Your task to perform on an android device: turn on javascript in the chrome app Image 0: 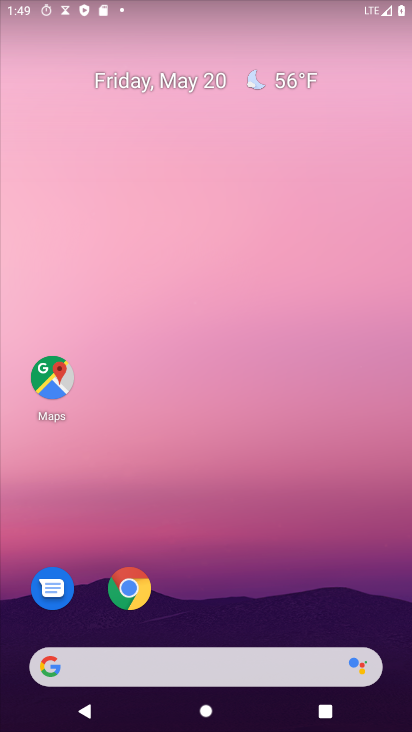
Step 0: click (135, 591)
Your task to perform on an android device: turn on javascript in the chrome app Image 1: 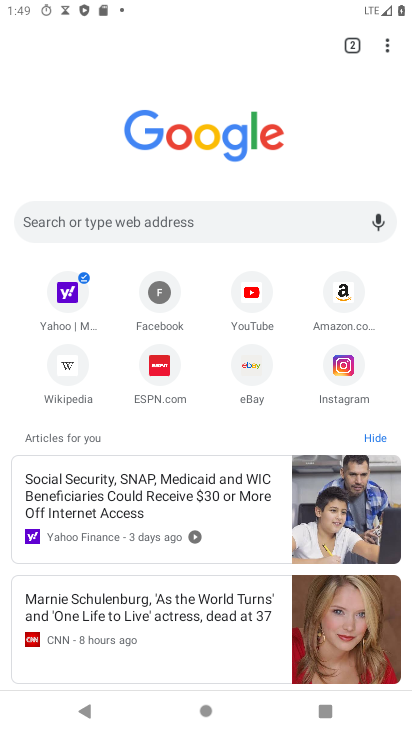
Step 1: click (383, 49)
Your task to perform on an android device: turn on javascript in the chrome app Image 2: 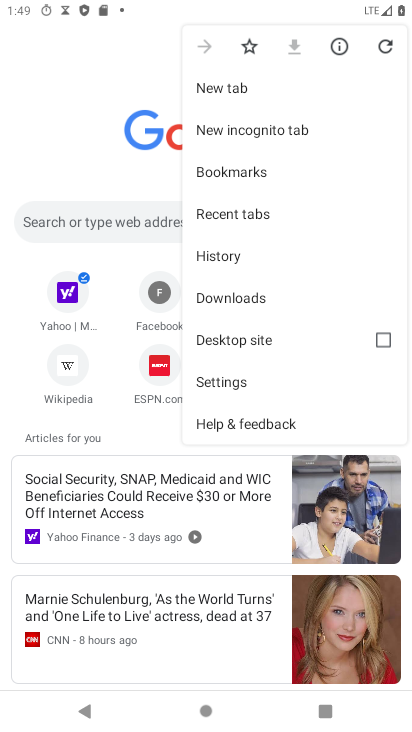
Step 2: click (217, 377)
Your task to perform on an android device: turn on javascript in the chrome app Image 3: 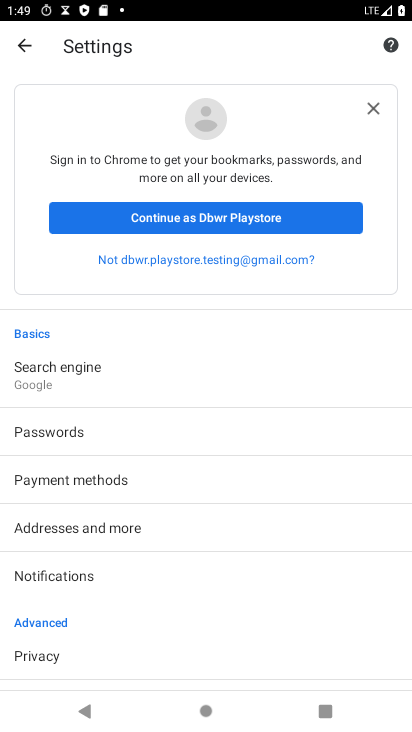
Step 3: drag from (45, 621) to (188, 169)
Your task to perform on an android device: turn on javascript in the chrome app Image 4: 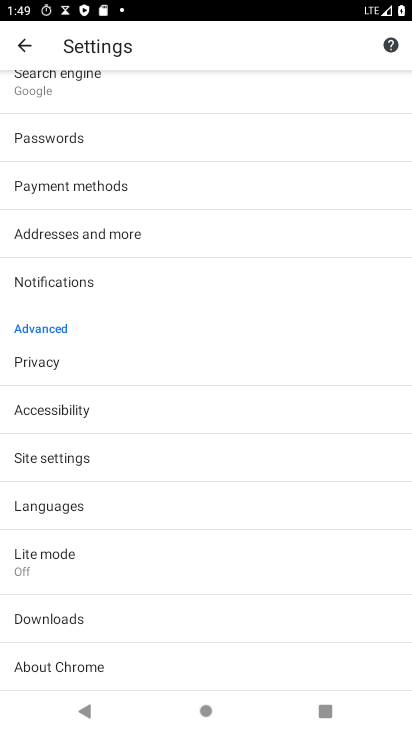
Step 4: click (52, 459)
Your task to perform on an android device: turn on javascript in the chrome app Image 5: 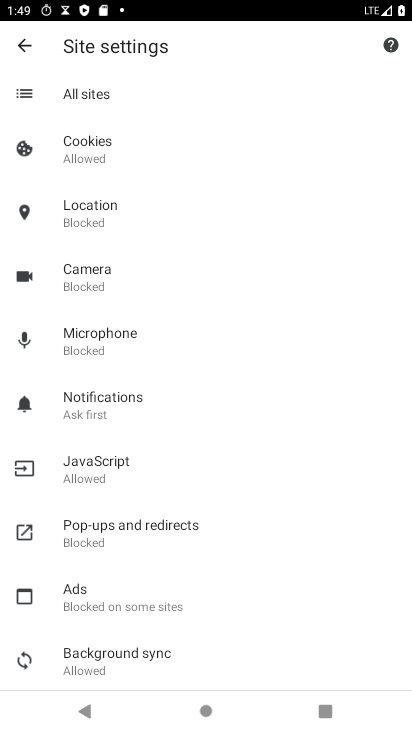
Step 5: click (130, 478)
Your task to perform on an android device: turn on javascript in the chrome app Image 6: 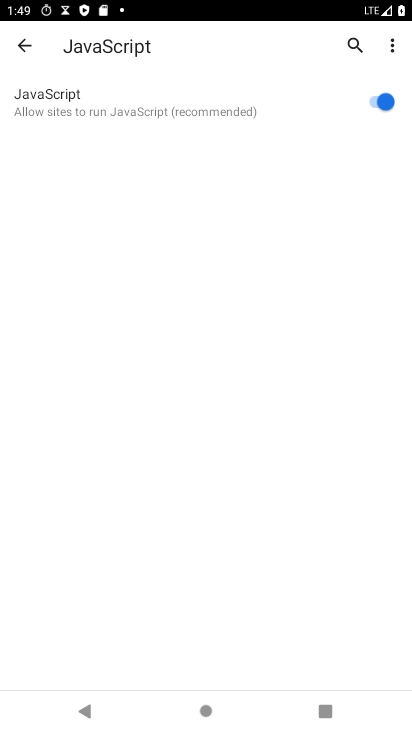
Step 6: task complete